Your task to perform on an android device: turn on javascript in the chrome app Image 0: 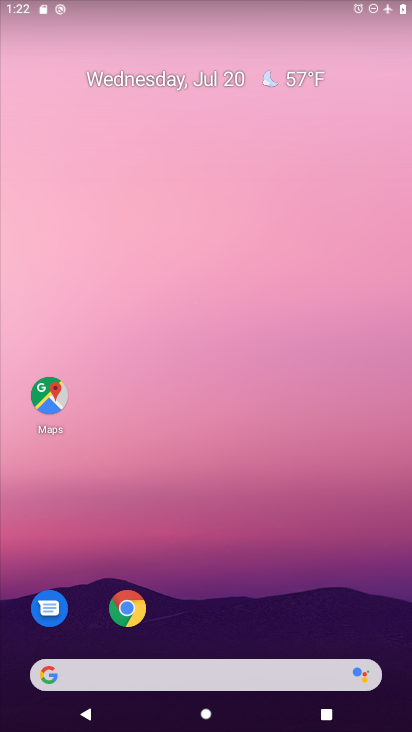
Step 0: click (127, 603)
Your task to perform on an android device: turn on javascript in the chrome app Image 1: 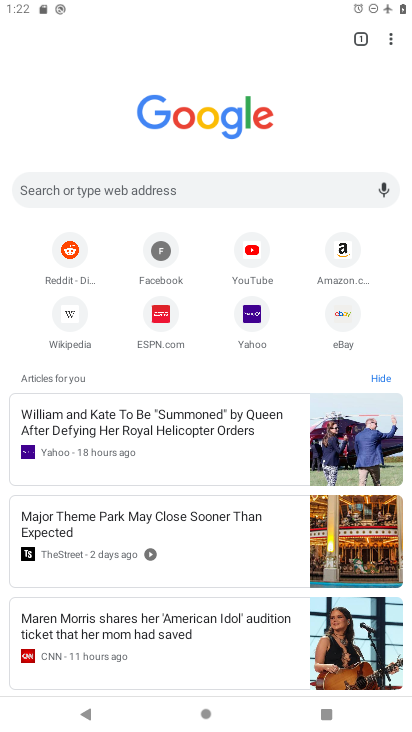
Step 1: click (388, 39)
Your task to perform on an android device: turn on javascript in the chrome app Image 2: 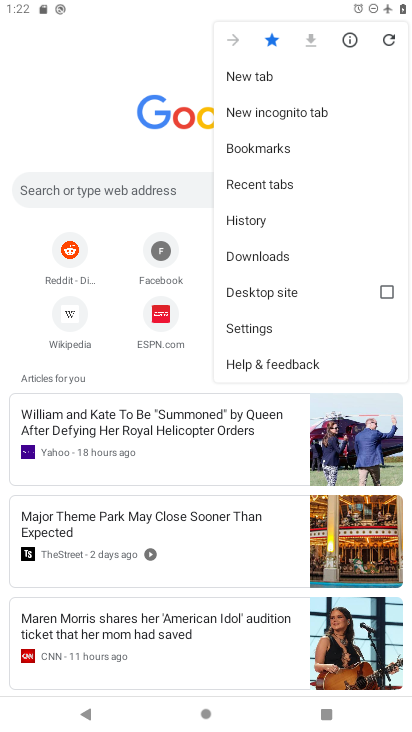
Step 2: click (281, 327)
Your task to perform on an android device: turn on javascript in the chrome app Image 3: 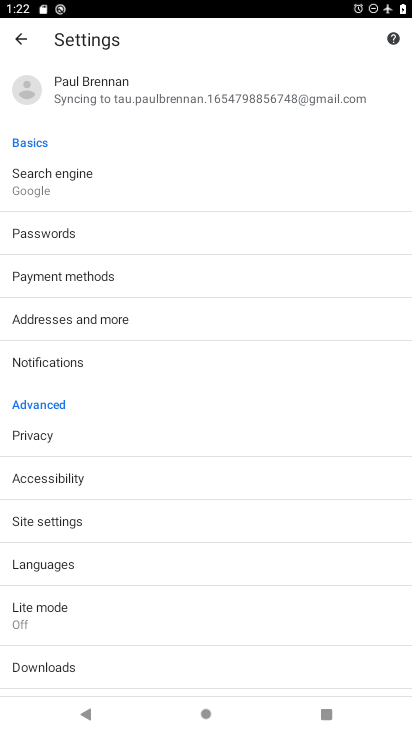
Step 3: click (78, 524)
Your task to perform on an android device: turn on javascript in the chrome app Image 4: 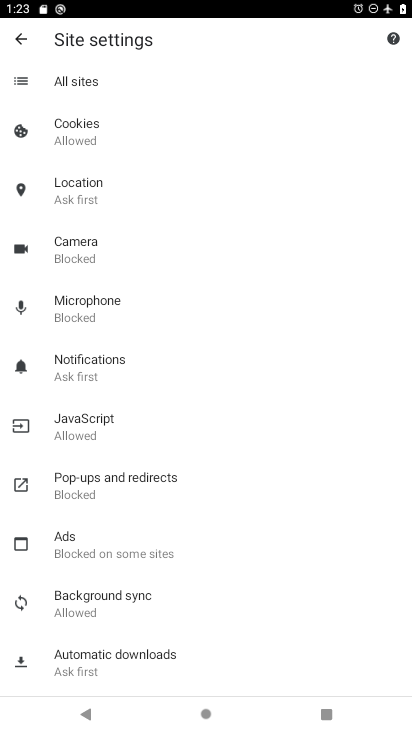
Step 4: click (117, 424)
Your task to perform on an android device: turn on javascript in the chrome app Image 5: 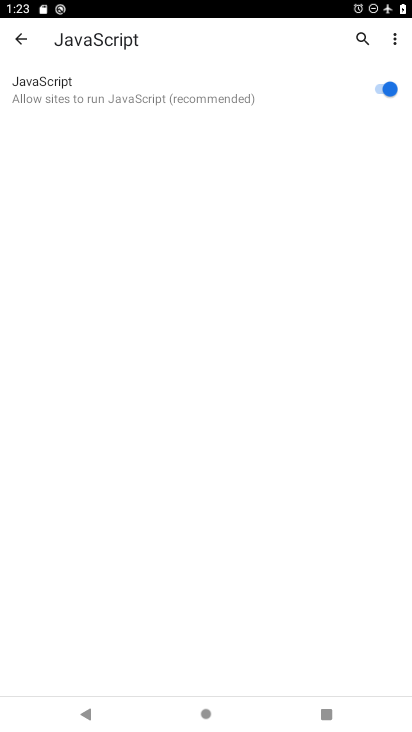
Step 5: task complete